Your task to perform on an android device: install app "Flipkart Online Shopping App" Image 0: 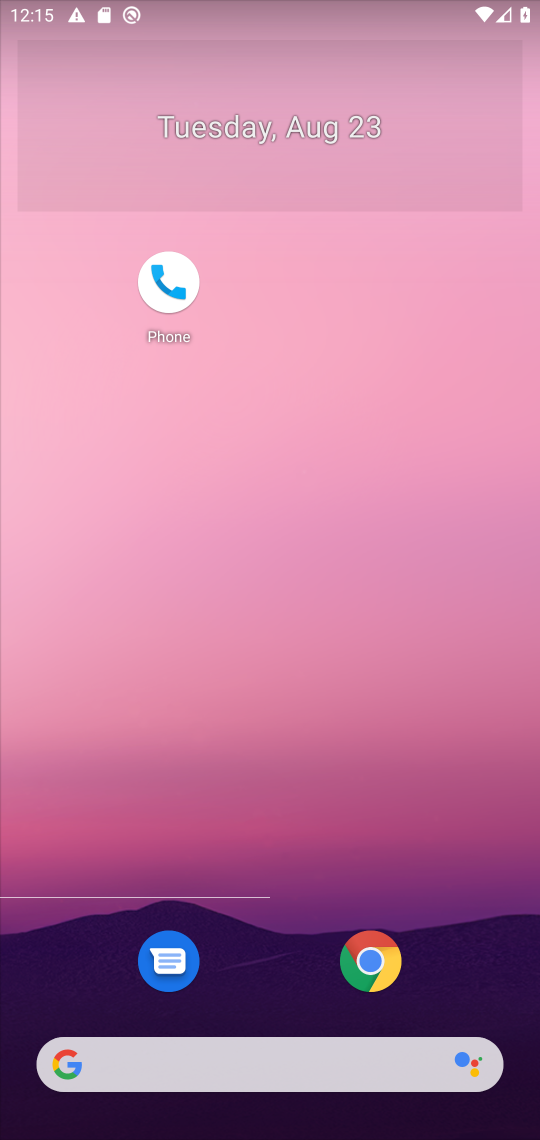
Step 0: drag from (282, 987) to (5, 60)
Your task to perform on an android device: install app "Flipkart Online Shopping App" Image 1: 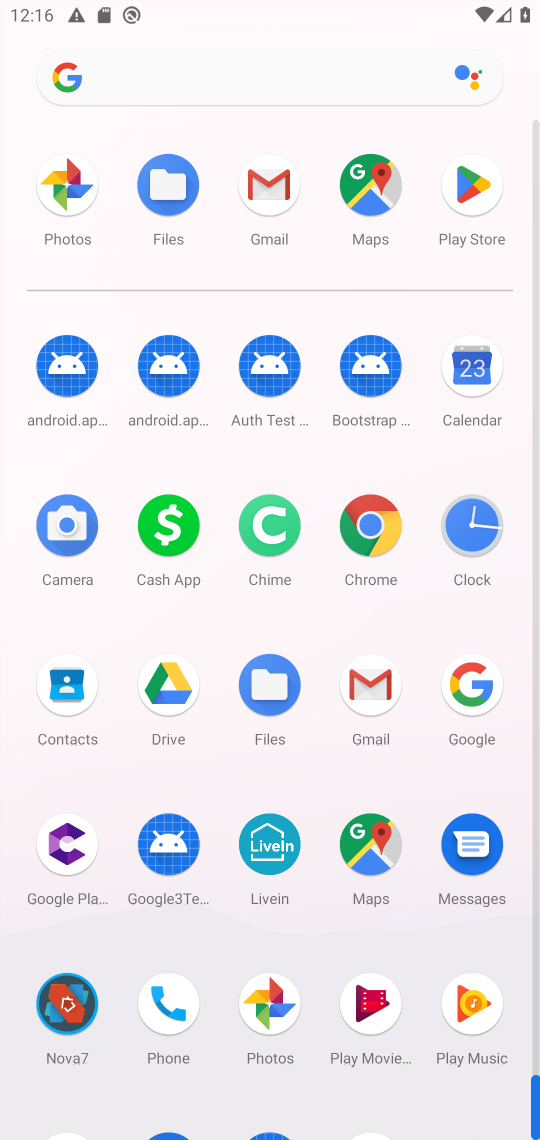
Step 1: click (474, 185)
Your task to perform on an android device: install app "Flipkart Online Shopping App" Image 2: 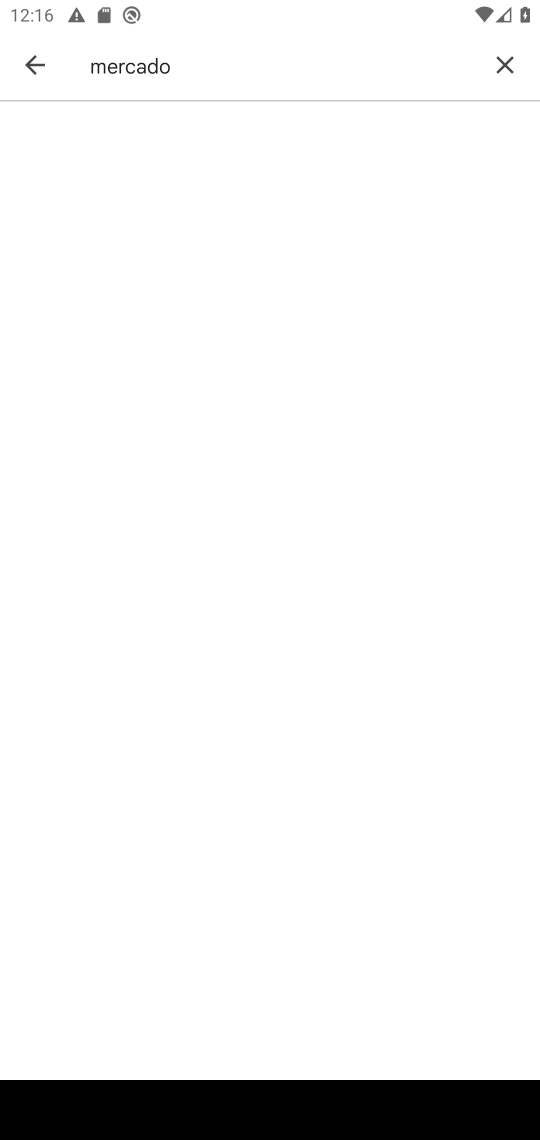
Step 2: click (501, 62)
Your task to perform on an android device: install app "Flipkart Online Shopping App" Image 3: 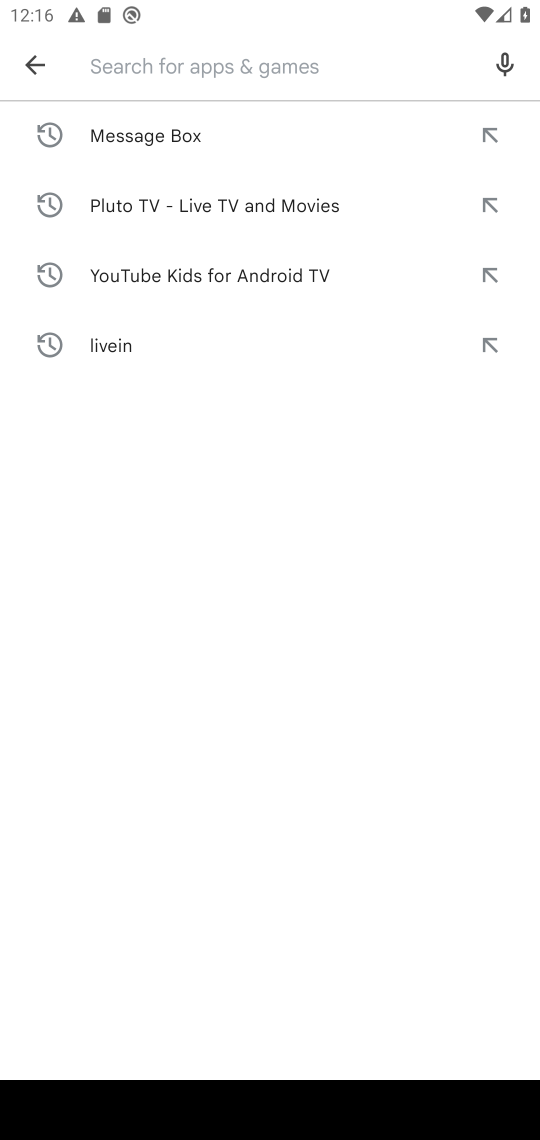
Step 3: type "flipkart"
Your task to perform on an android device: install app "Flipkart Online Shopping App" Image 4: 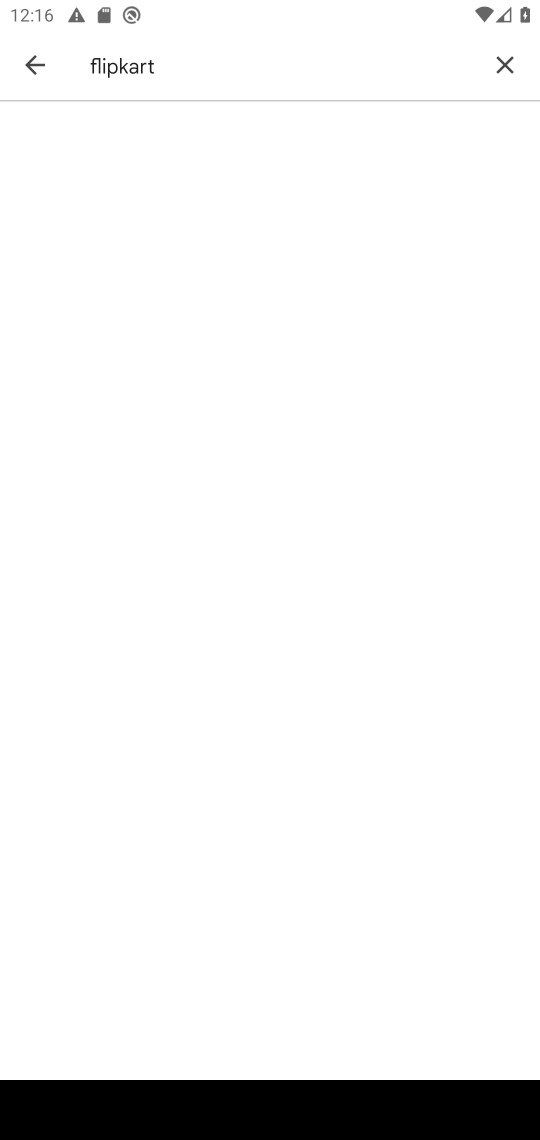
Step 4: task complete